Your task to perform on an android device: install app "Google Keep" Image 0: 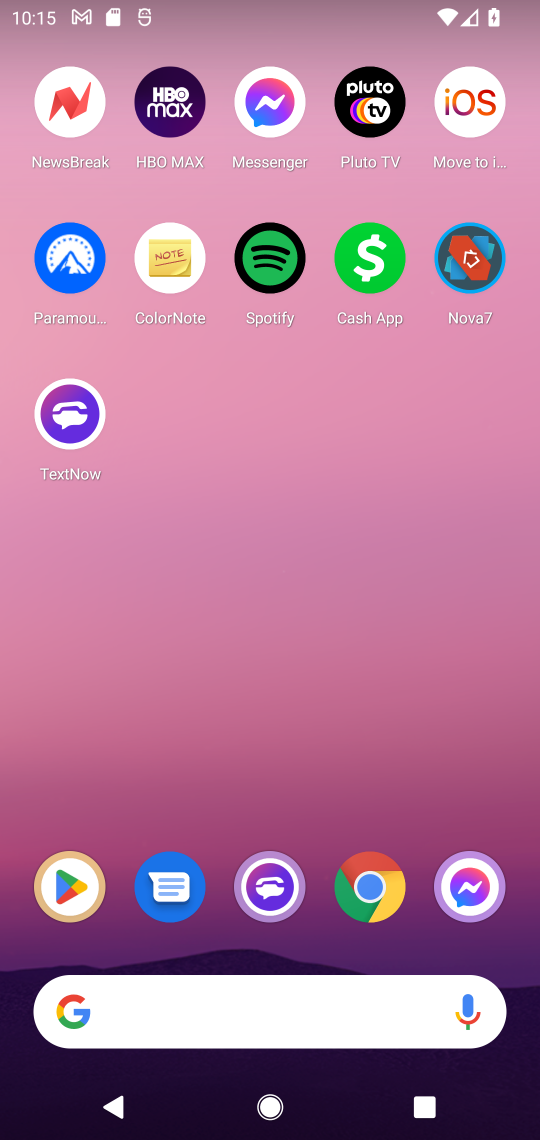
Step 0: click (70, 875)
Your task to perform on an android device: install app "Google Keep" Image 1: 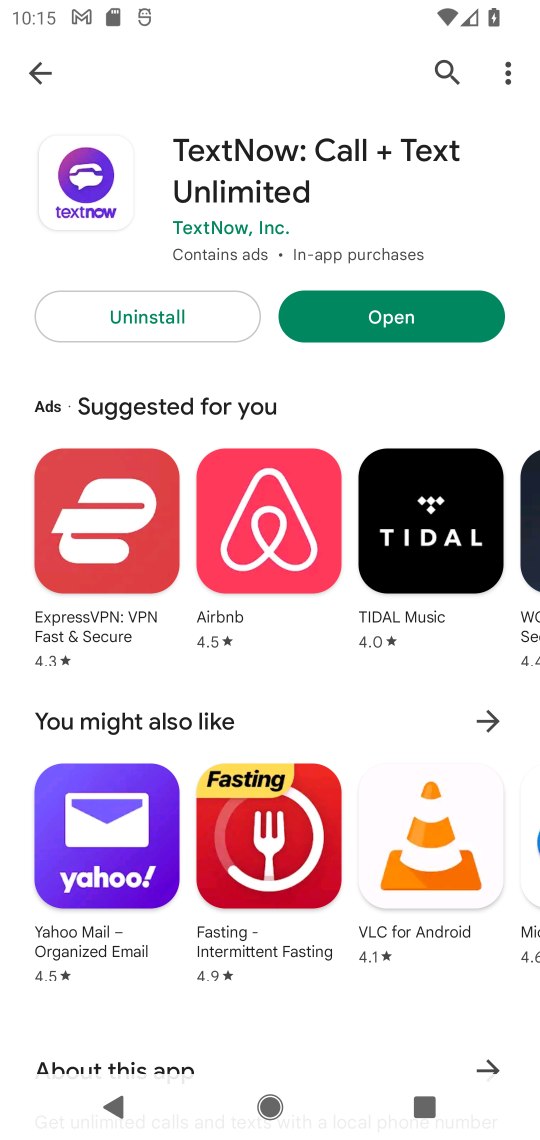
Step 1: click (438, 69)
Your task to perform on an android device: install app "Google Keep" Image 2: 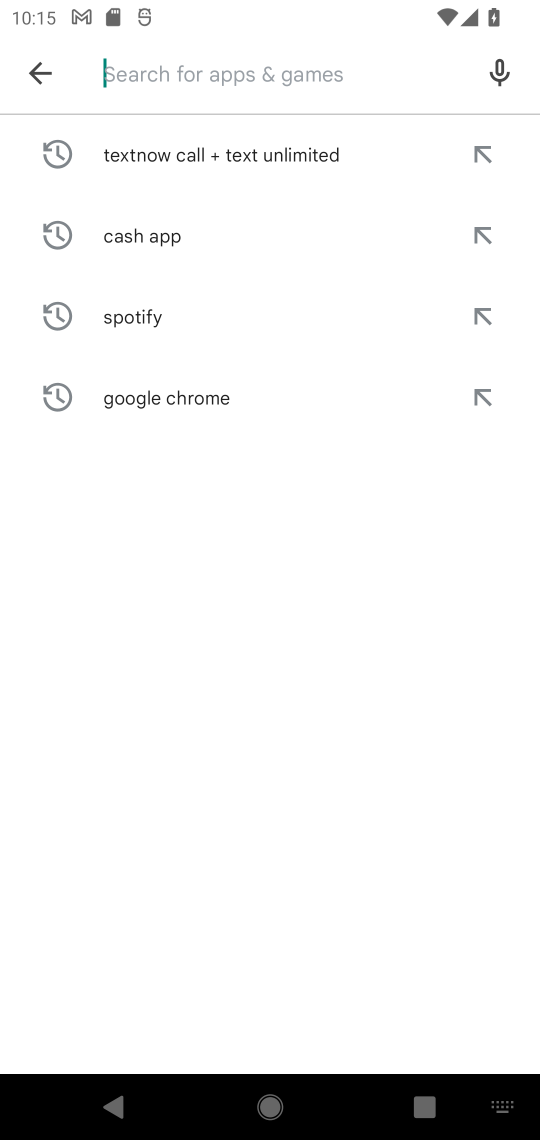
Step 2: type "google keep"
Your task to perform on an android device: install app "Google Keep" Image 3: 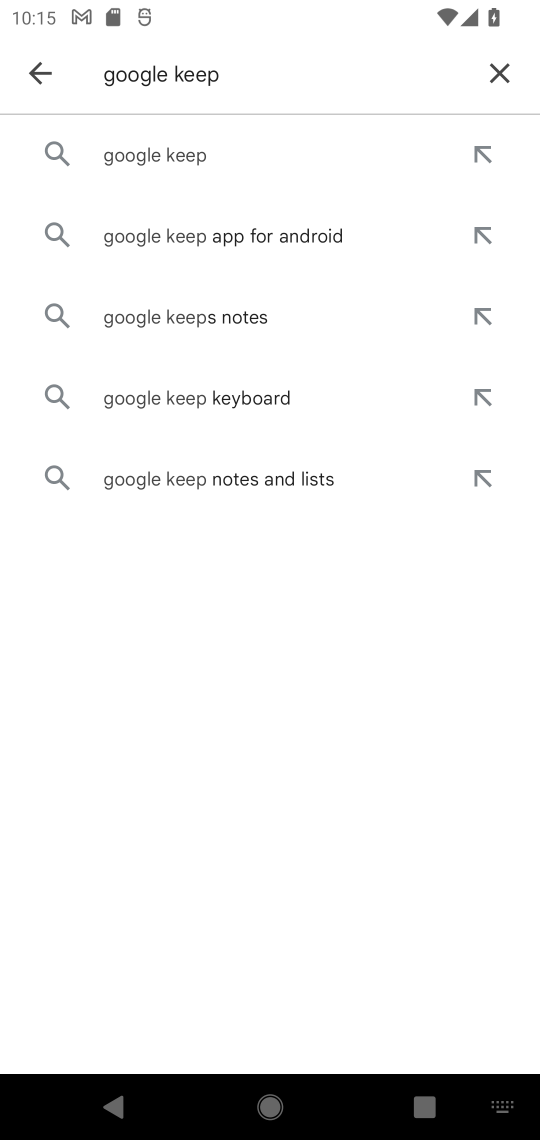
Step 3: click (235, 150)
Your task to perform on an android device: install app "Google Keep" Image 4: 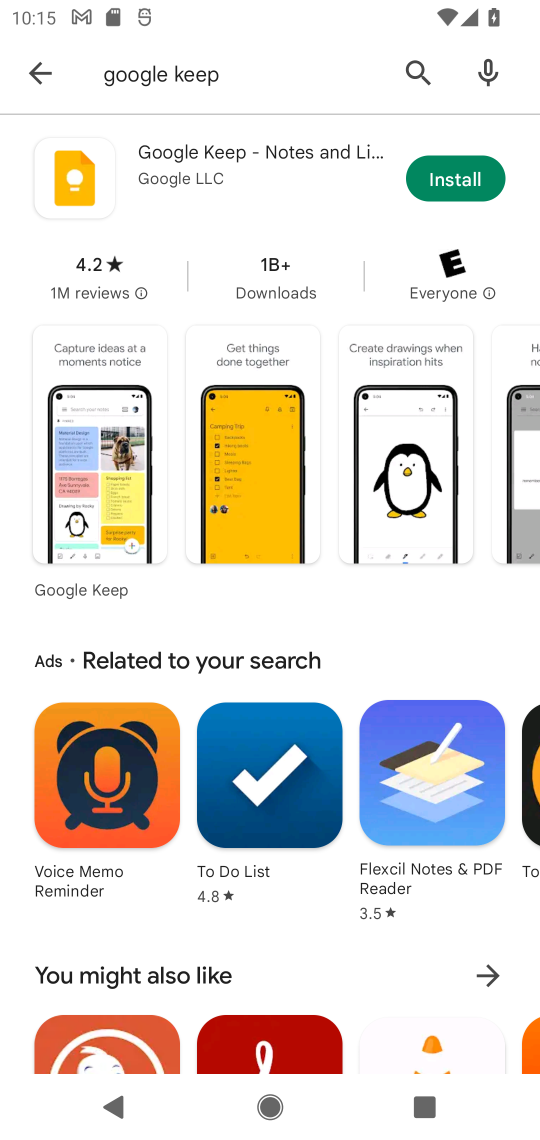
Step 4: click (206, 145)
Your task to perform on an android device: install app "Google Keep" Image 5: 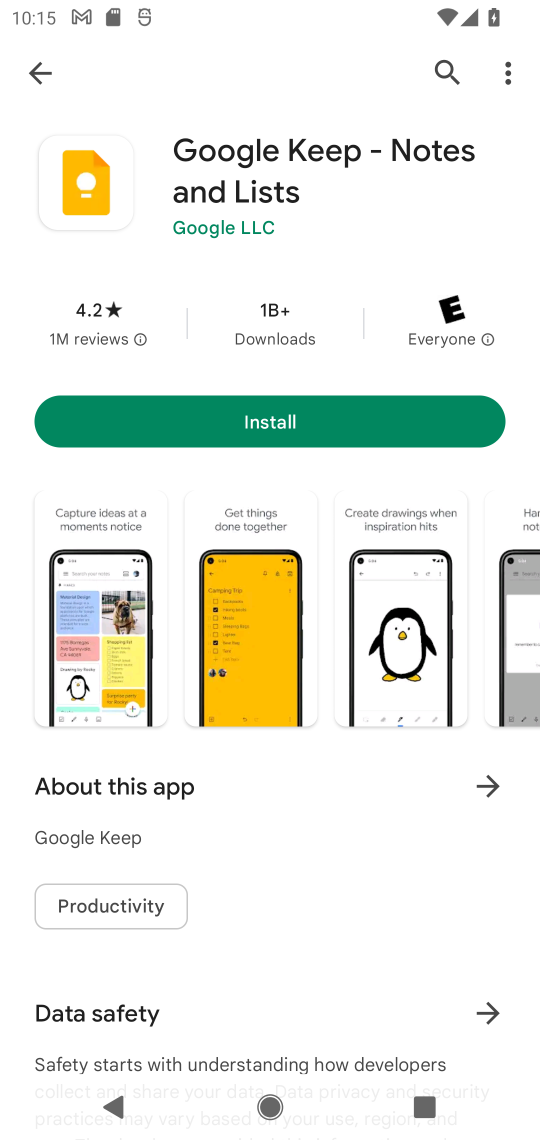
Step 5: click (327, 405)
Your task to perform on an android device: install app "Google Keep" Image 6: 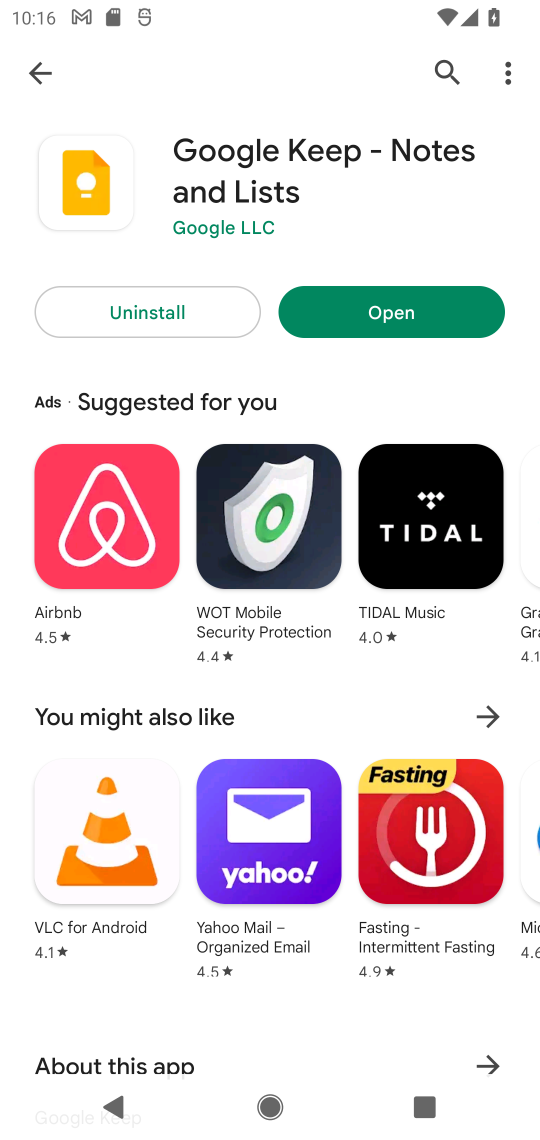
Step 6: task complete